Your task to perform on an android device: Open Google Maps and go to "Timeline" Image 0: 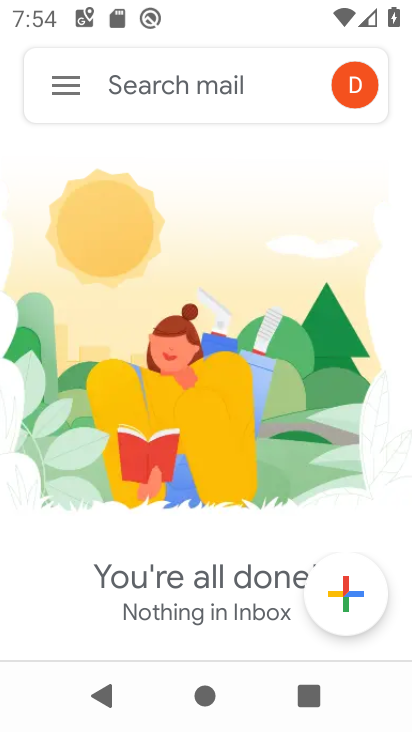
Step 0: press back button
Your task to perform on an android device: Open Google Maps and go to "Timeline" Image 1: 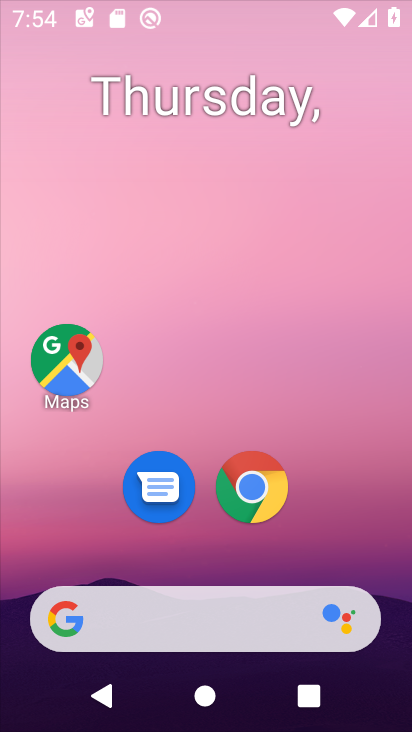
Step 1: press back button
Your task to perform on an android device: Open Google Maps and go to "Timeline" Image 2: 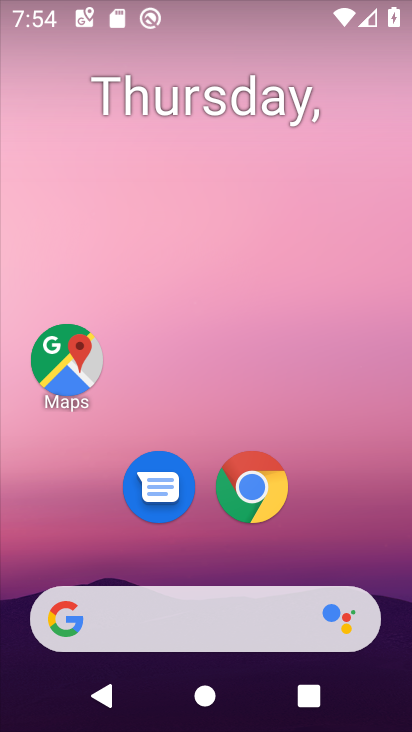
Step 2: click (41, 360)
Your task to perform on an android device: Open Google Maps and go to "Timeline" Image 3: 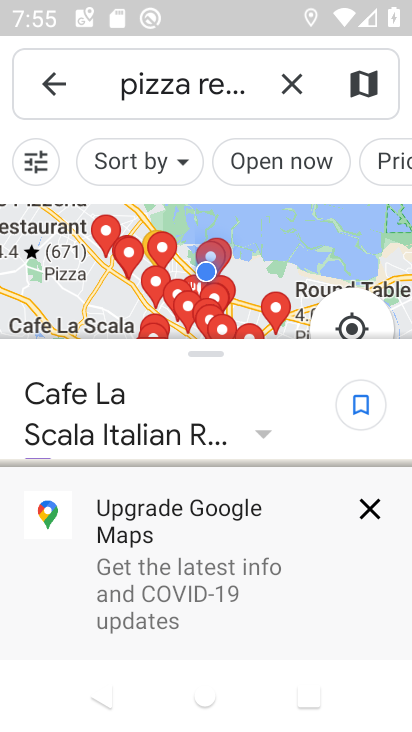
Step 3: click (57, 80)
Your task to perform on an android device: Open Google Maps and go to "Timeline" Image 4: 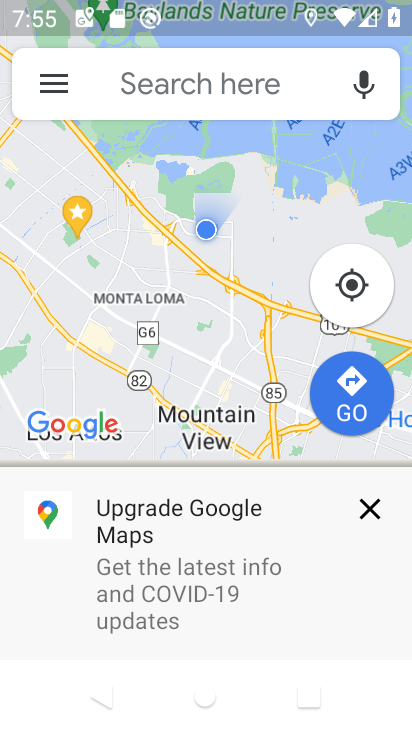
Step 4: click (53, 78)
Your task to perform on an android device: Open Google Maps and go to "Timeline" Image 5: 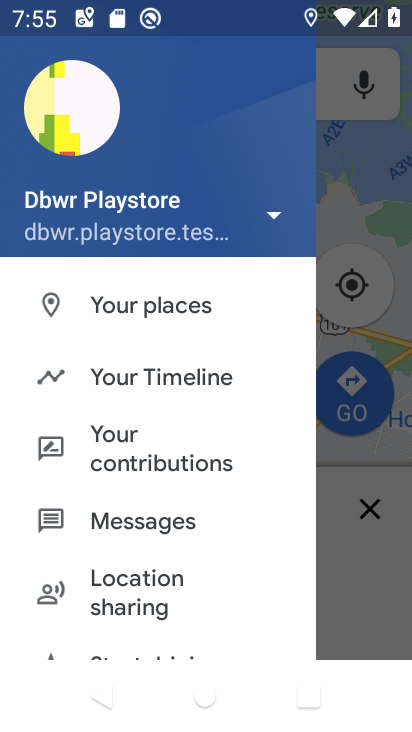
Step 5: click (163, 366)
Your task to perform on an android device: Open Google Maps and go to "Timeline" Image 6: 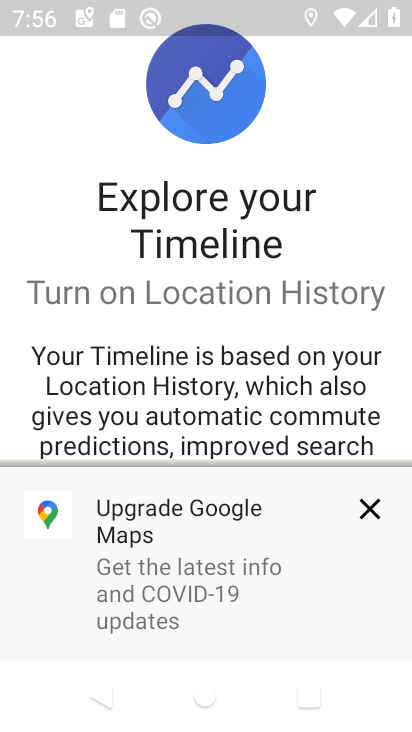
Step 6: task complete